Your task to perform on an android device: turn on improve location accuracy Image 0: 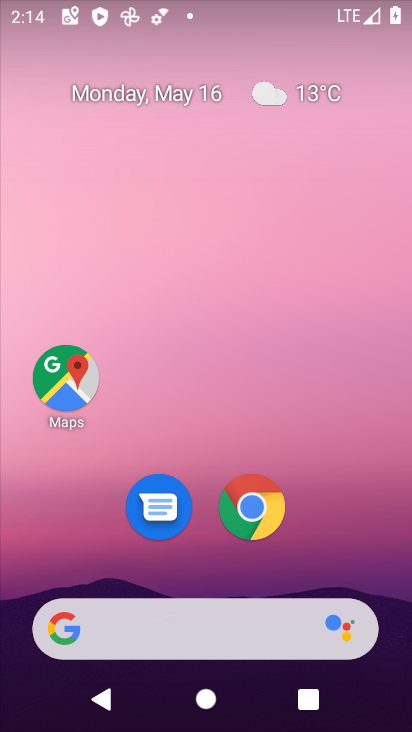
Step 0: drag from (326, 351) to (261, 2)
Your task to perform on an android device: turn on improve location accuracy Image 1: 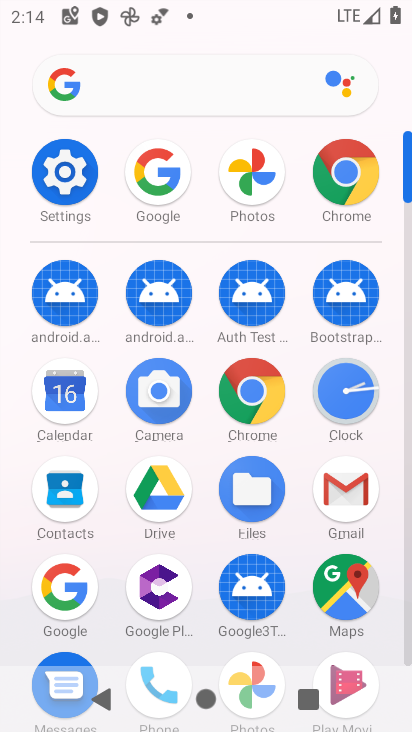
Step 1: click (79, 191)
Your task to perform on an android device: turn on improve location accuracy Image 2: 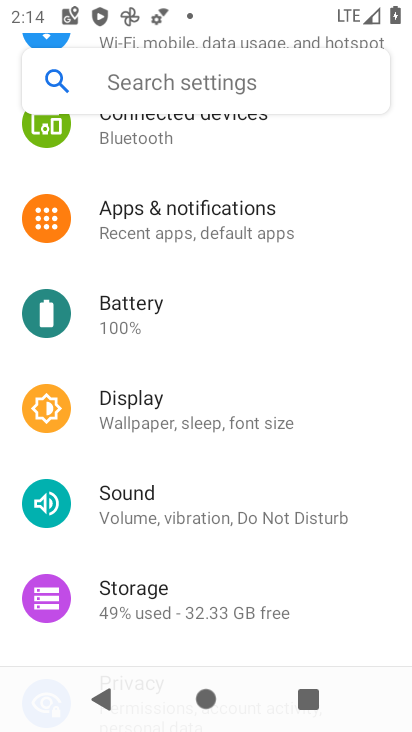
Step 2: drag from (234, 580) to (248, 140)
Your task to perform on an android device: turn on improve location accuracy Image 3: 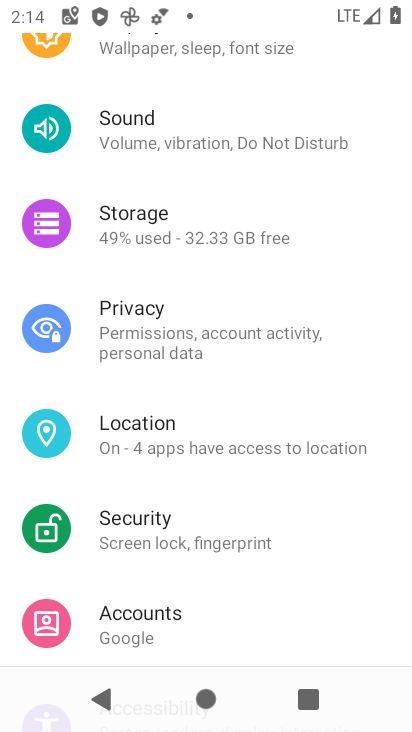
Step 3: click (213, 421)
Your task to perform on an android device: turn on improve location accuracy Image 4: 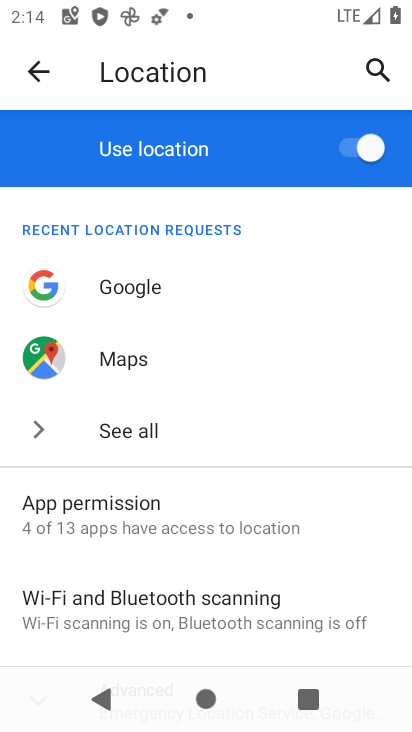
Step 4: drag from (213, 569) to (199, 155)
Your task to perform on an android device: turn on improve location accuracy Image 5: 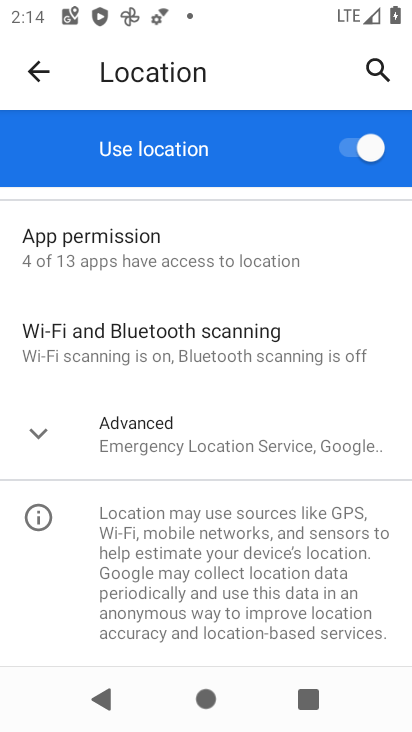
Step 5: click (208, 445)
Your task to perform on an android device: turn on improve location accuracy Image 6: 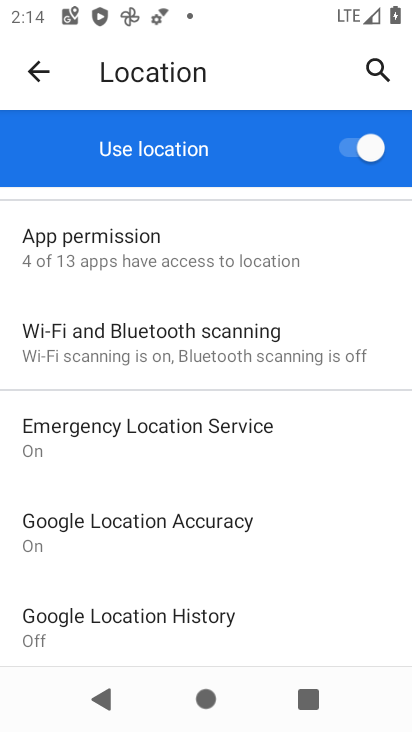
Step 6: click (220, 528)
Your task to perform on an android device: turn on improve location accuracy Image 7: 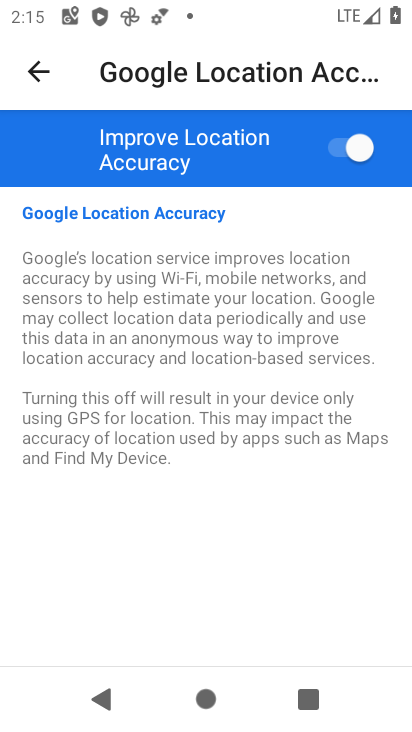
Step 7: task complete